Your task to perform on an android device: Search for energizer triple a on amazon, select the first entry, add it to the cart, then select checkout. Image 0: 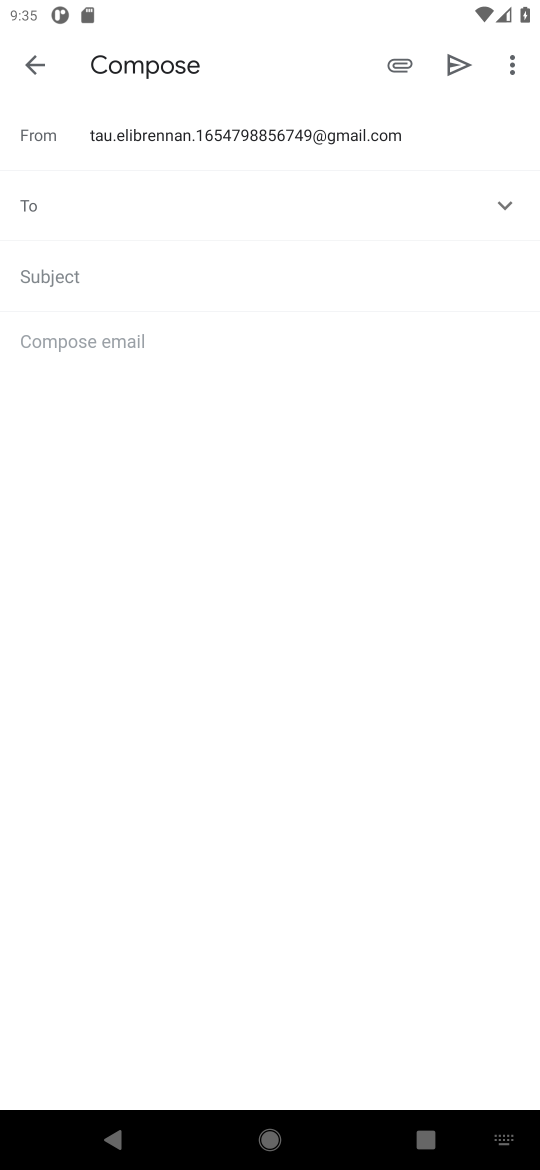
Step 0: press home button
Your task to perform on an android device: Search for energizer triple a on amazon, select the first entry, add it to the cart, then select checkout. Image 1: 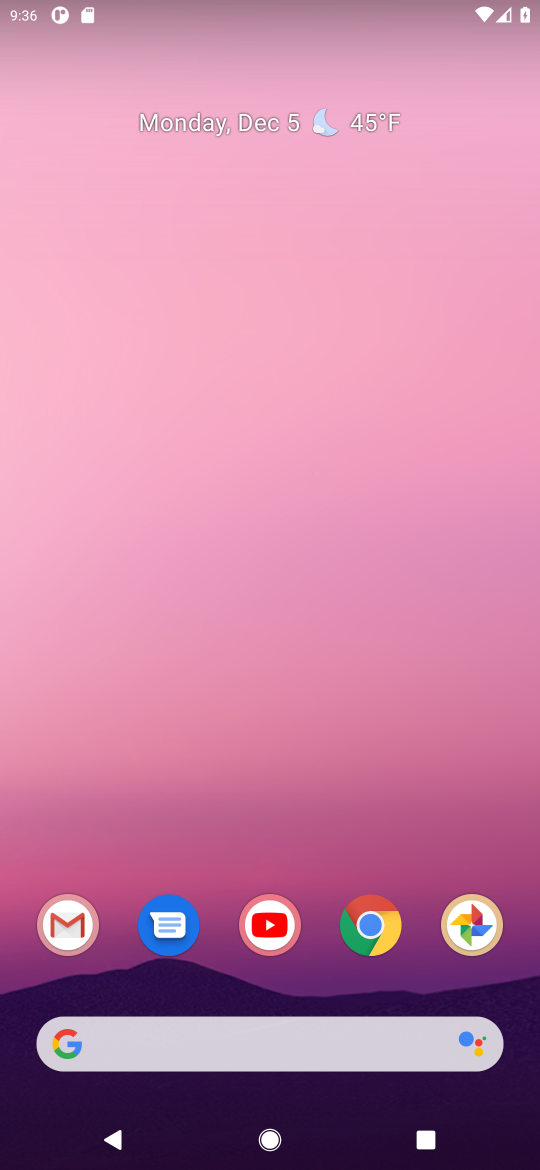
Step 1: click (365, 935)
Your task to perform on an android device: Search for energizer triple a on amazon, select the first entry, add it to the cart, then select checkout. Image 2: 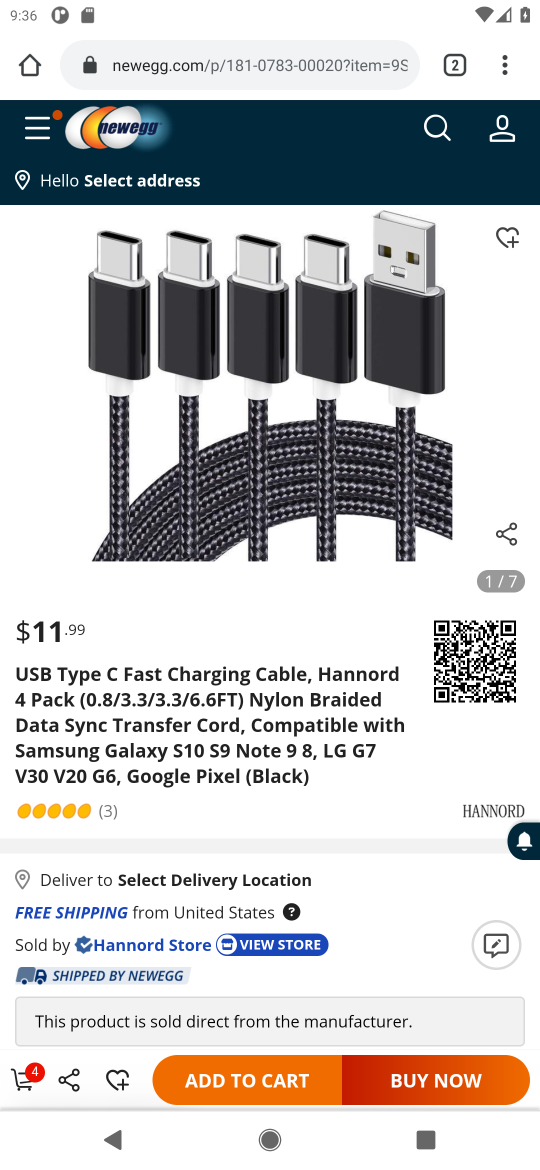
Step 2: click (179, 60)
Your task to perform on an android device: Search for energizer triple a on amazon, select the first entry, add it to the cart, then select checkout. Image 3: 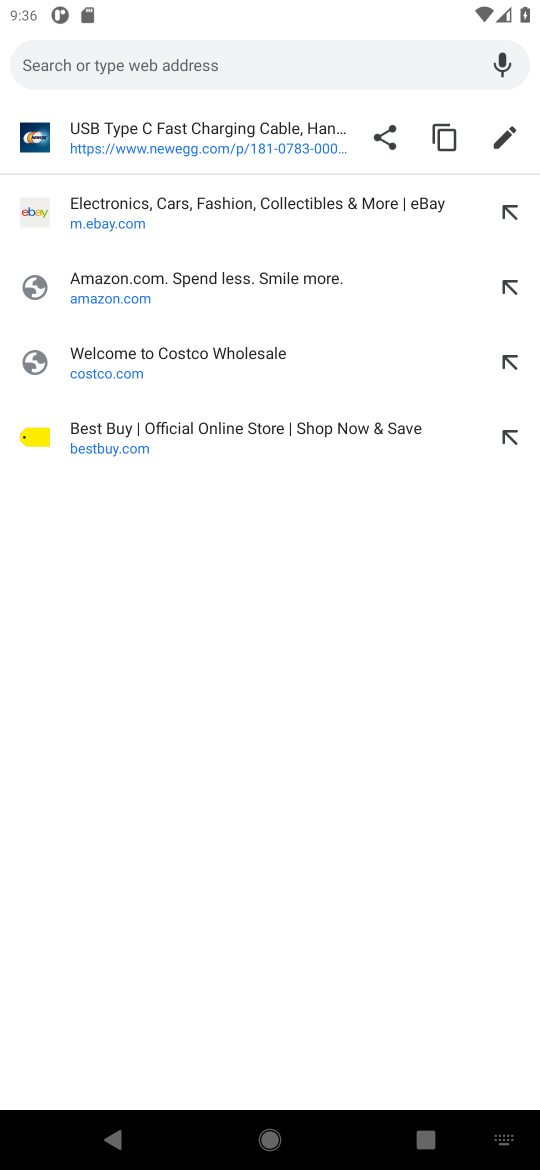
Step 3: click (114, 273)
Your task to perform on an android device: Search for energizer triple a on amazon, select the first entry, add it to the cart, then select checkout. Image 4: 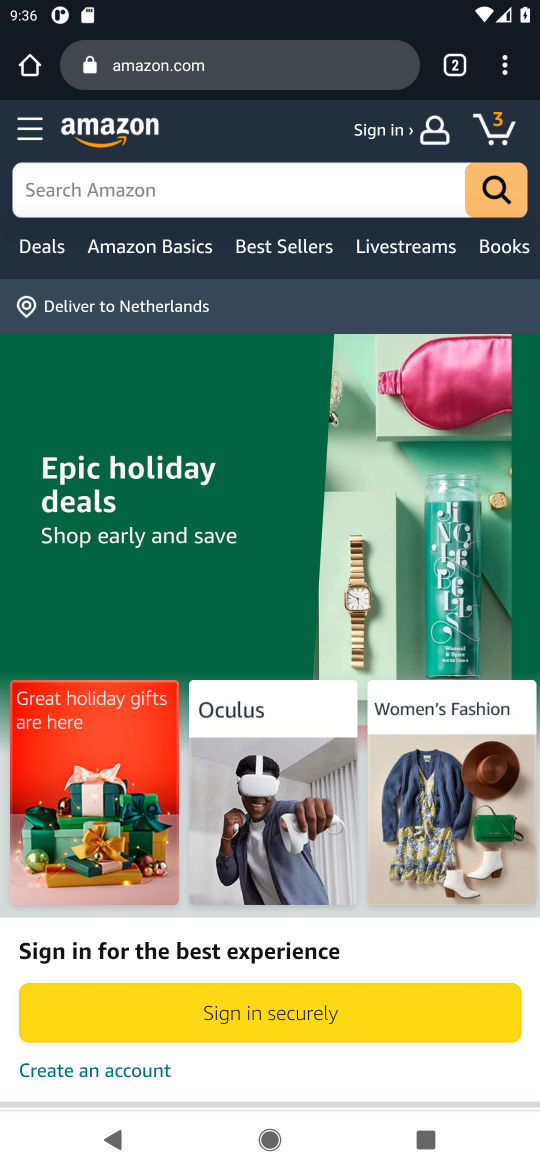
Step 4: click (130, 188)
Your task to perform on an android device: Search for energizer triple a on amazon, select the first entry, add it to the cart, then select checkout. Image 5: 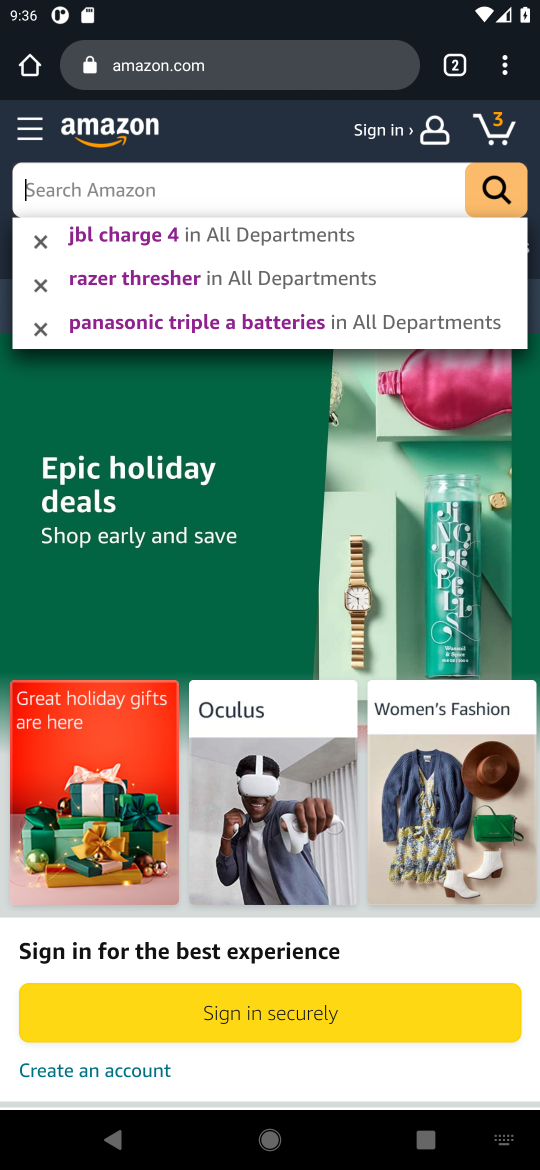
Step 5: type "energizer triple a"
Your task to perform on an android device: Search for energizer triple a on amazon, select the first entry, add it to the cart, then select checkout. Image 6: 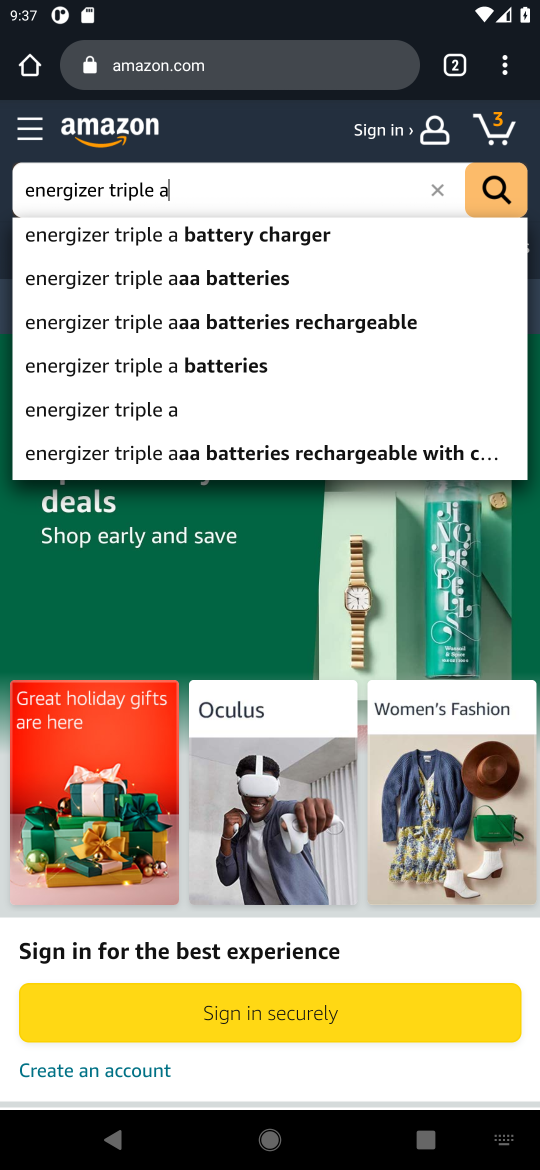
Step 6: click (135, 289)
Your task to perform on an android device: Search for energizer triple a on amazon, select the first entry, add it to the cart, then select checkout. Image 7: 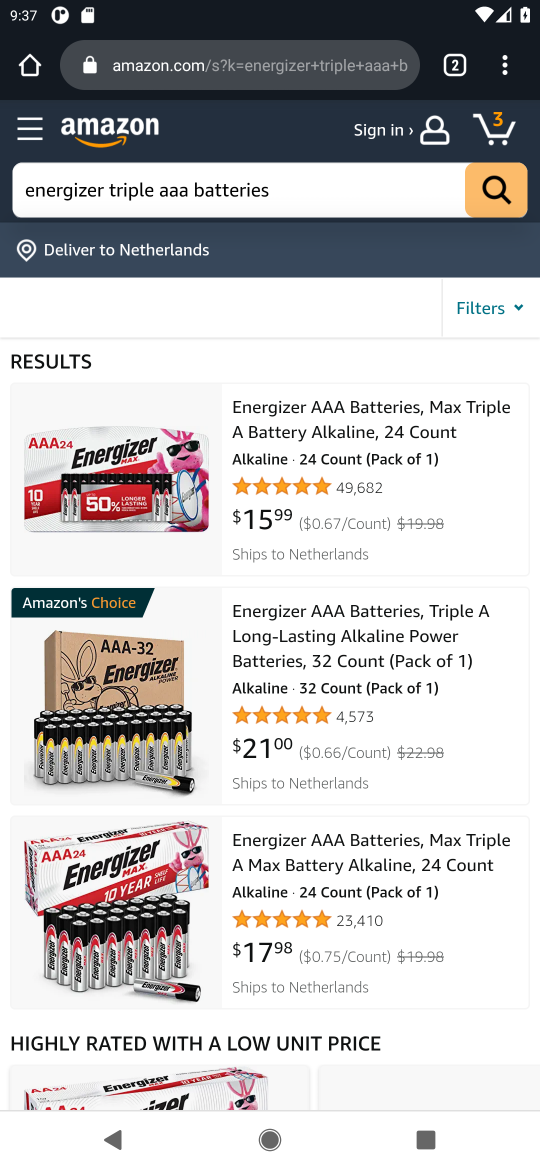
Step 7: click (296, 445)
Your task to perform on an android device: Search for energizer triple a on amazon, select the first entry, add it to the cart, then select checkout. Image 8: 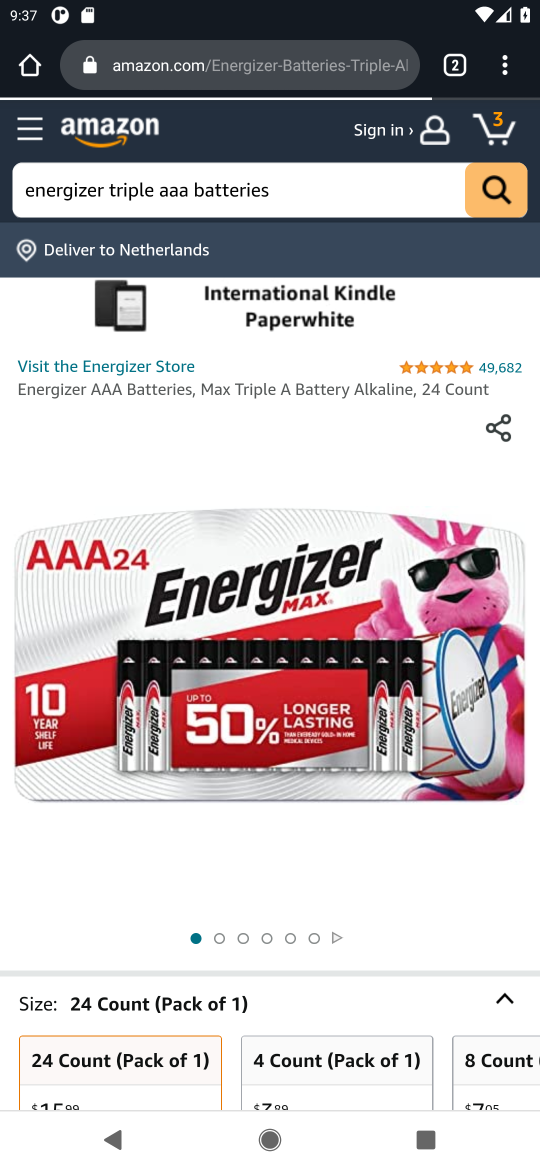
Step 8: drag from (372, 877) to (375, 439)
Your task to perform on an android device: Search for energizer triple a on amazon, select the first entry, add it to the cart, then select checkout. Image 9: 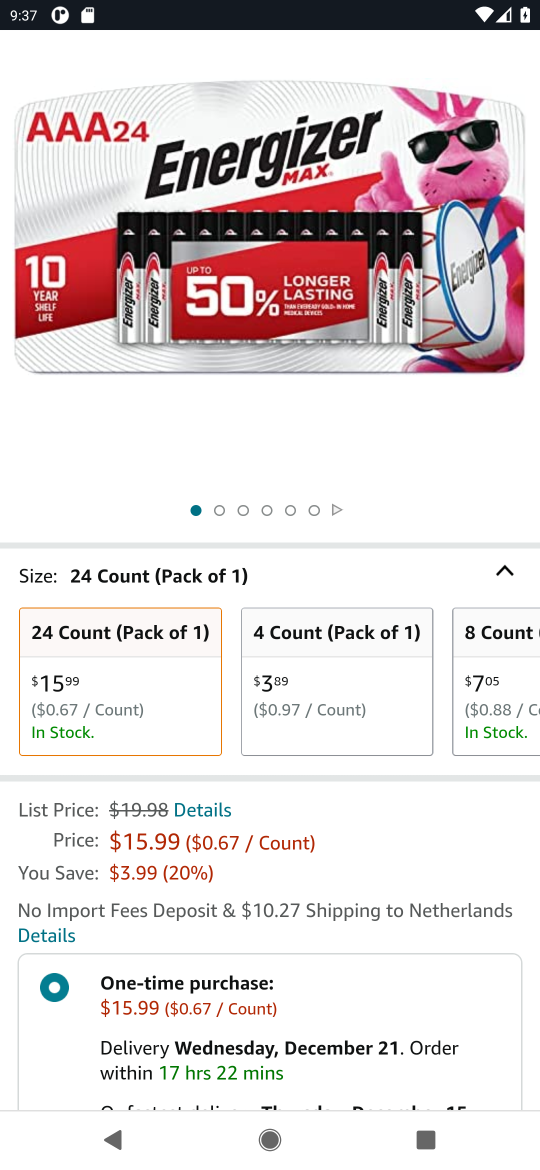
Step 9: drag from (365, 758) to (371, 340)
Your task to perform on an android device: Search for energizer triple a on amazon, select the first entry, add it to the cart, then select checkout. Image 10: 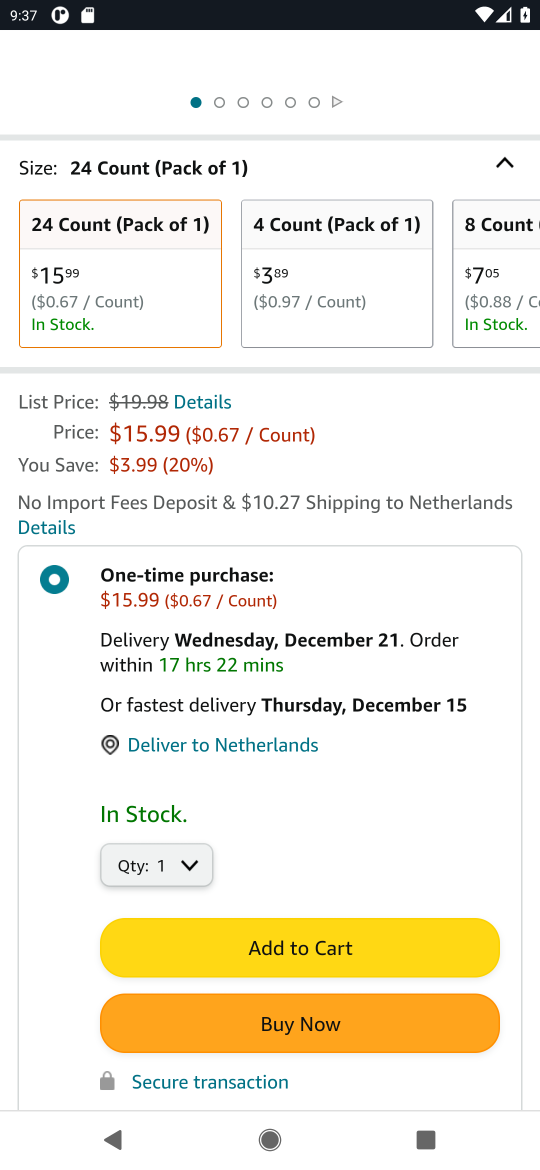
Step 10: click (258, 952)
Your task to perform on an android device: Search for energizer triple a on amazon, select the first entry, add it to the cart, then select checkout. Image 11: 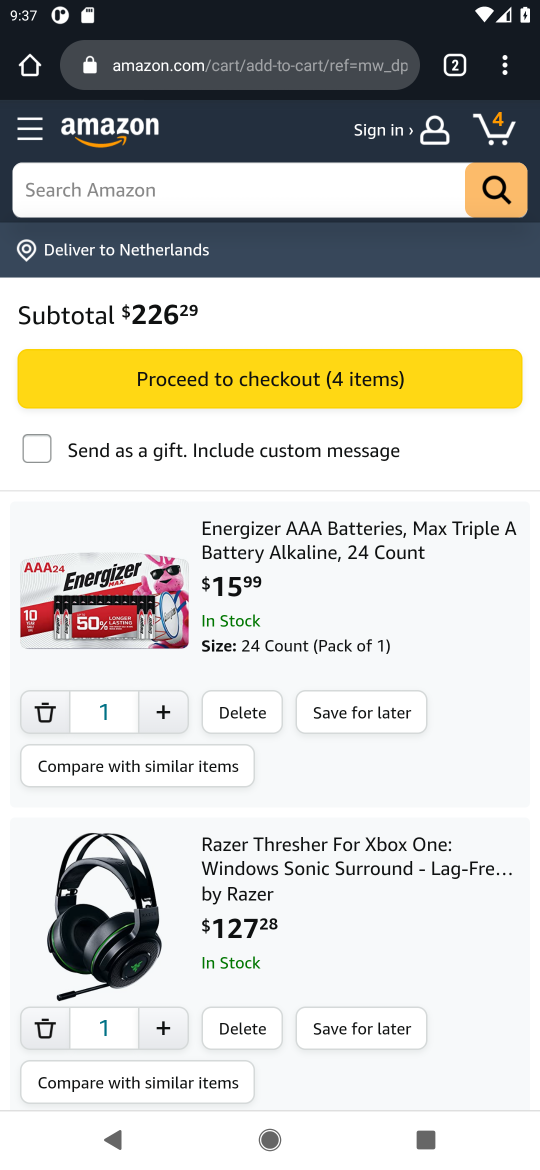
Step 11: click (227, 378)
Your task to perform on an android device: Search for energizer triple a on amazon, select the first entry, add it to the cart, then select checkout. Image 12: 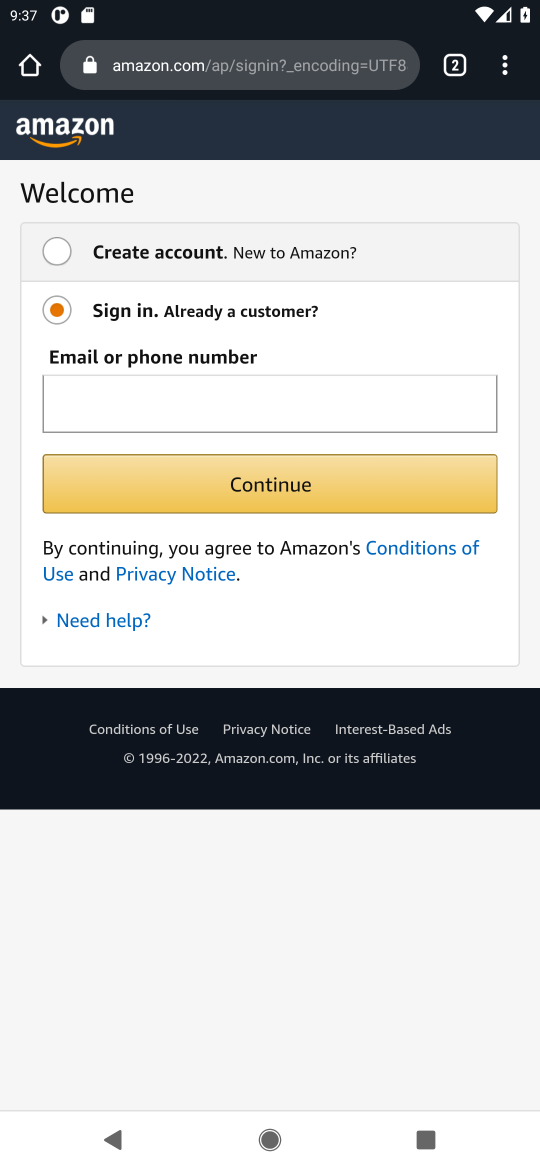
Step 12: task complete